Your task to perform on an android device: Open Google Maps Image 0: 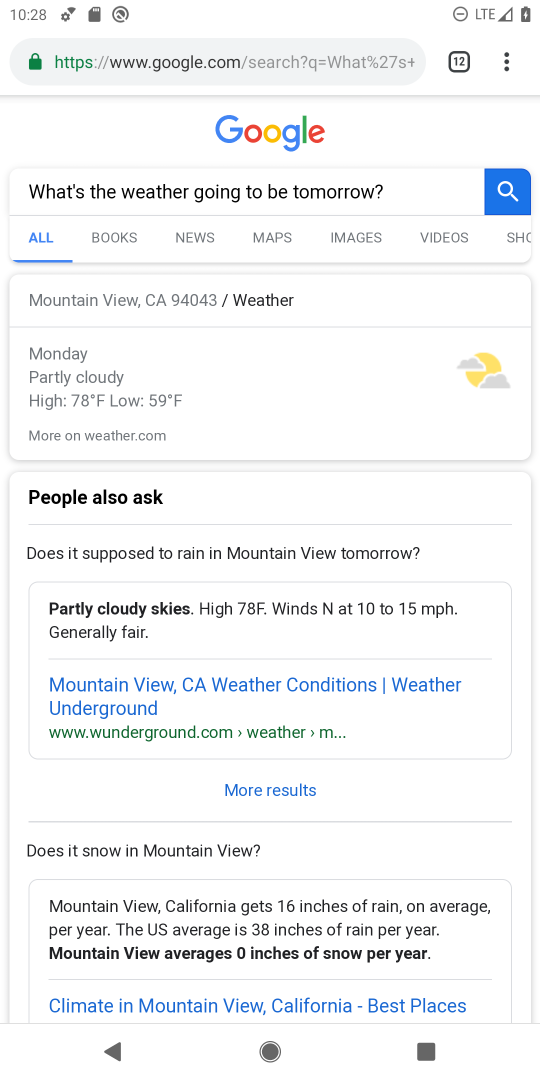
Step 0: press home button
Your task to perform on an android device: Open Google Maps Image 1: 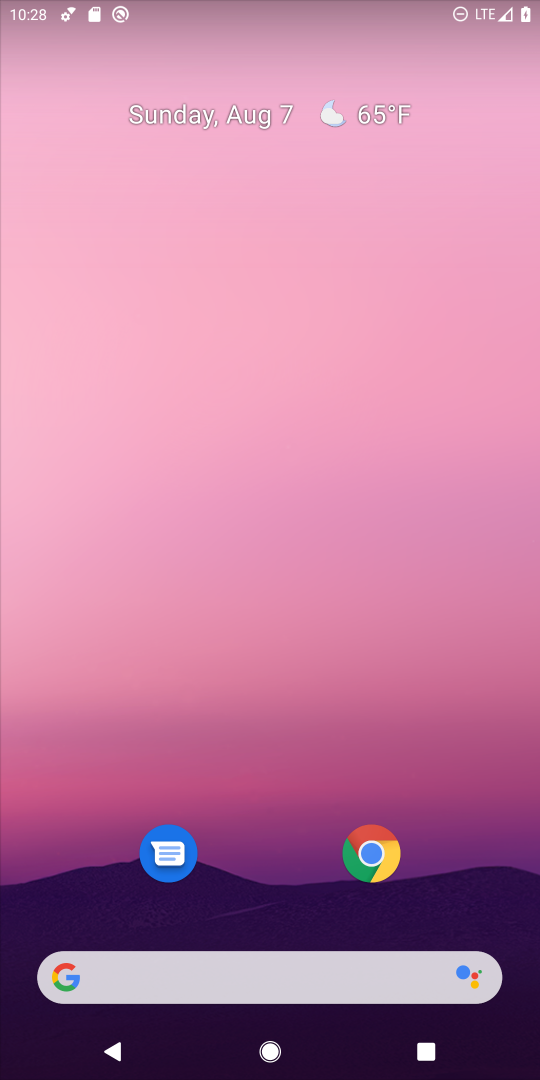
Step 1: drag from (254, 883) to (298, 273)
Your task to perform on an android device: Open Google Maps Image 2: 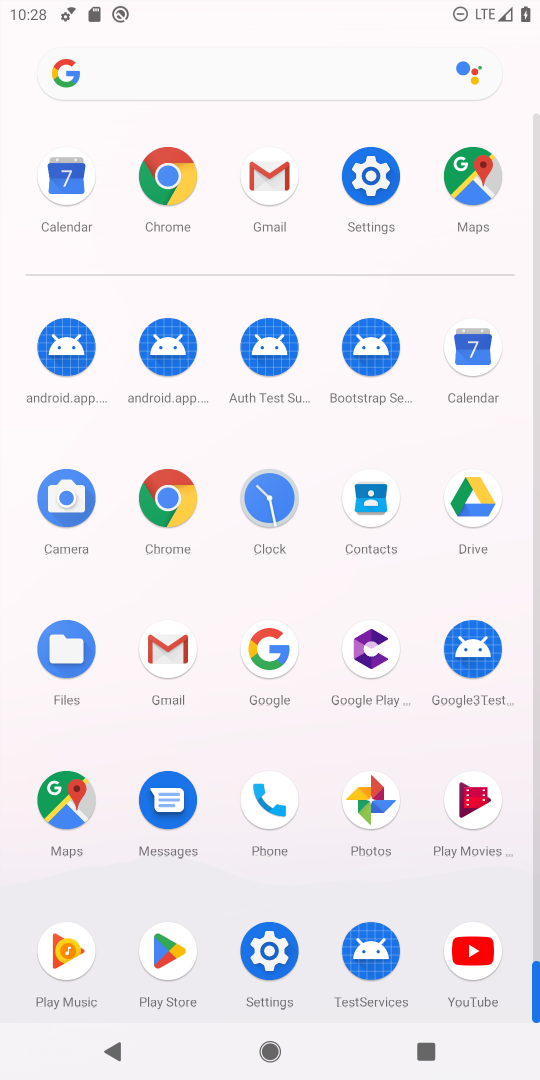
Step 2: click (58, 785)
Your task to perform on an android device: Open Google Maps Image 3: 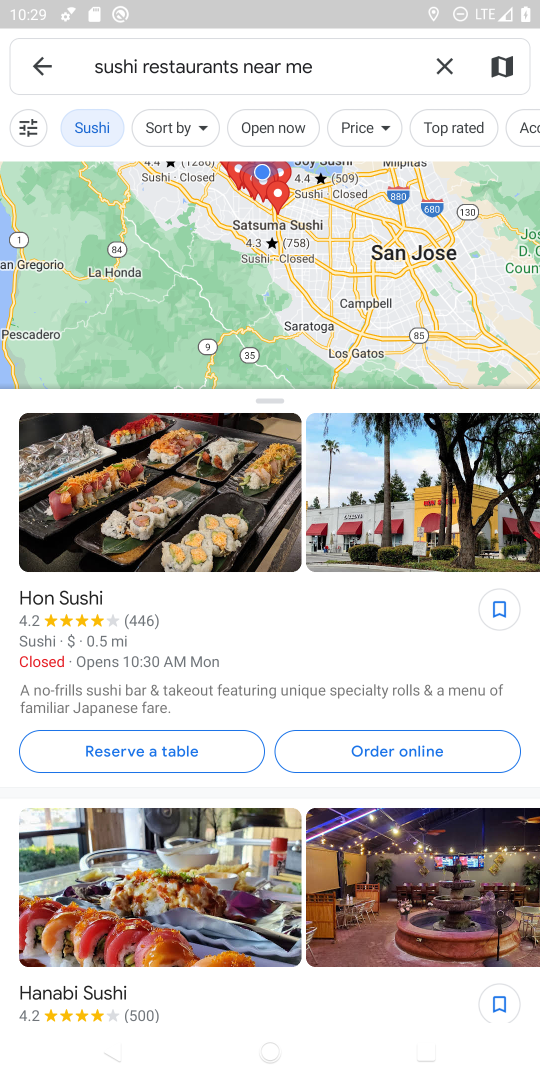
Step 3: click (442, 52)
Your task to perform on an android device: Open Google Maps Image 4: 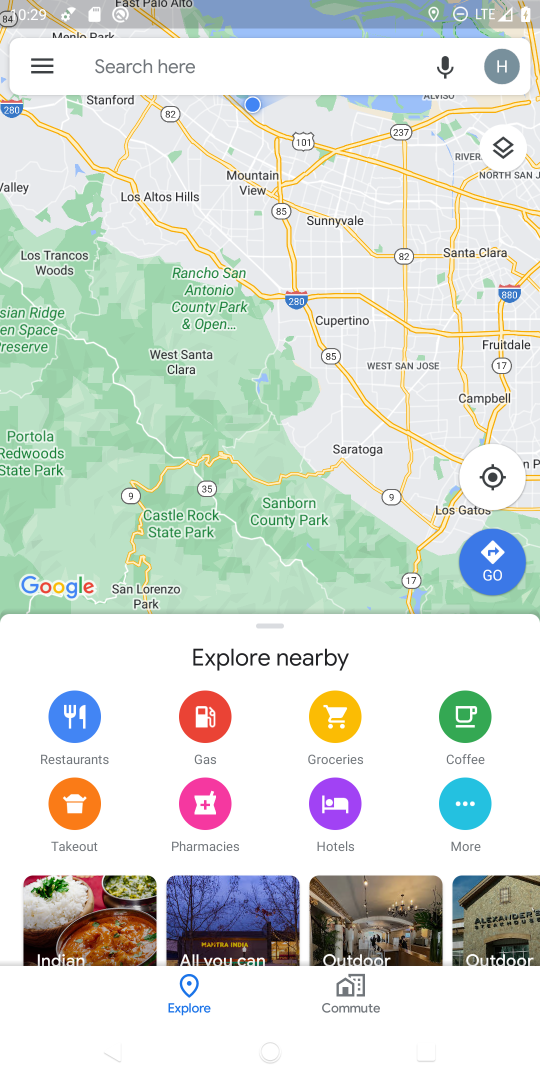
Step 4: task complete